Your task to perform on an android device: add a label to a message in the gmail app Image 0: 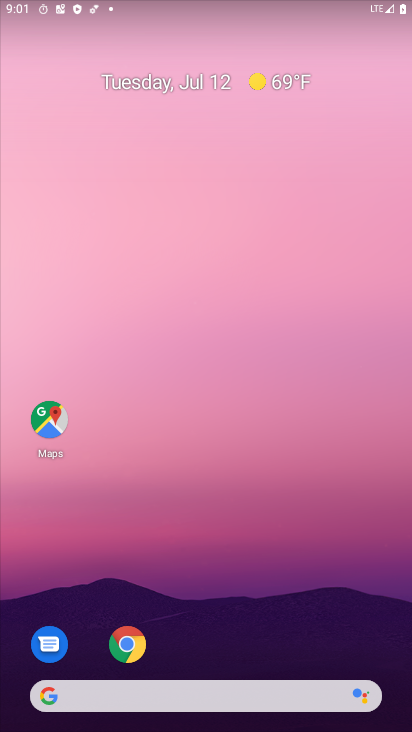
Step 0: press home button
Your task to perform on an android device: add a label to a message in the gmail app Image 1: 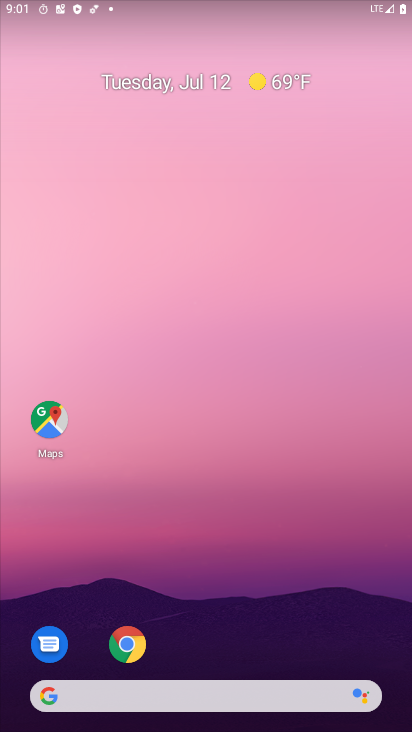
Step 1: drag from (211, 655) to (310, 61)
Your task to perform on an android device: add a label to a message in the gmail app Image 2: 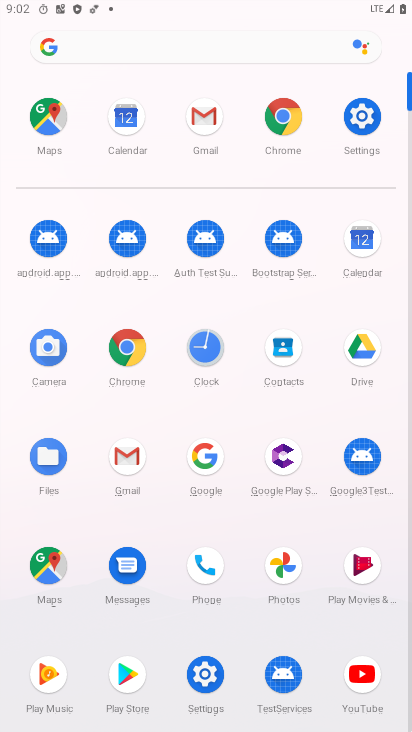
Step 2: click (126, 452)
Your task to perform on an android device: add a label to a message in the gmail app Image 3: 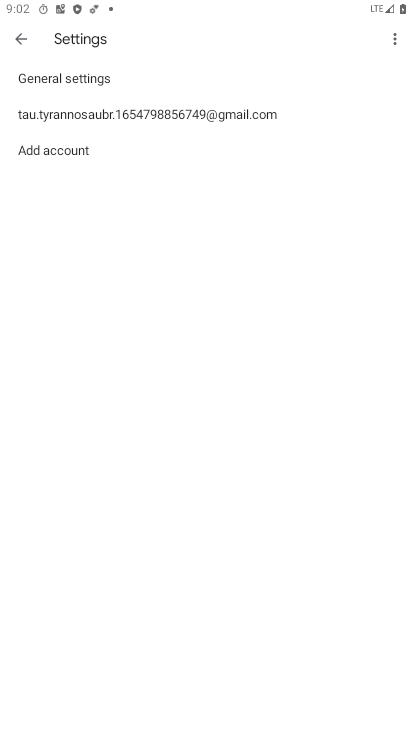
Step 3: click (21, 34)
Your task to perform on an android device: add a label to a message in the gmail app Image 4: 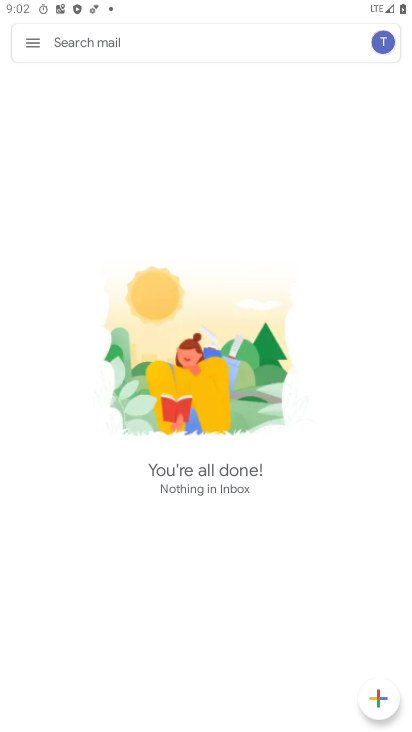
Step 4: task complete